Your task to perform on an android device: Add dell xps to the cart on amazon Image 0: 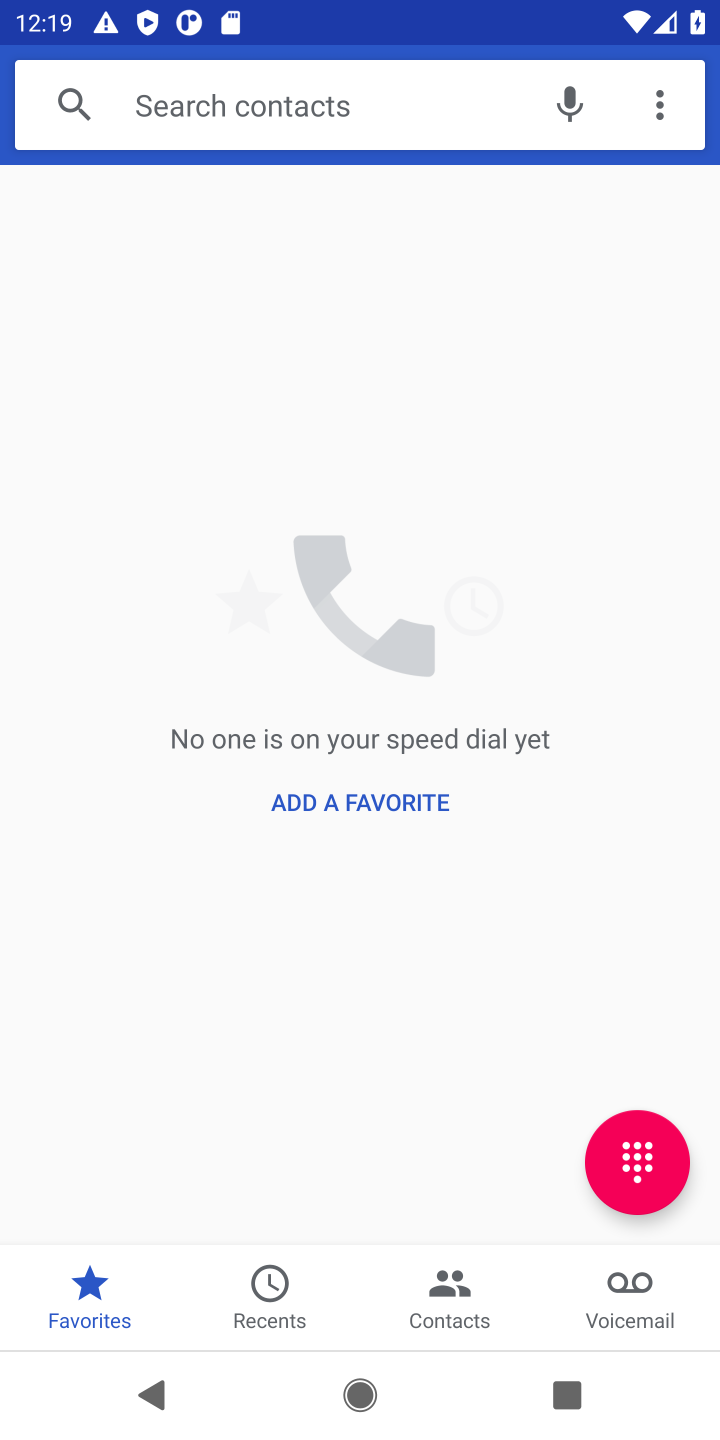
Step 0: press home button
Your task to perform on an android device: Add dell xps to the cart on amazon Image 1: 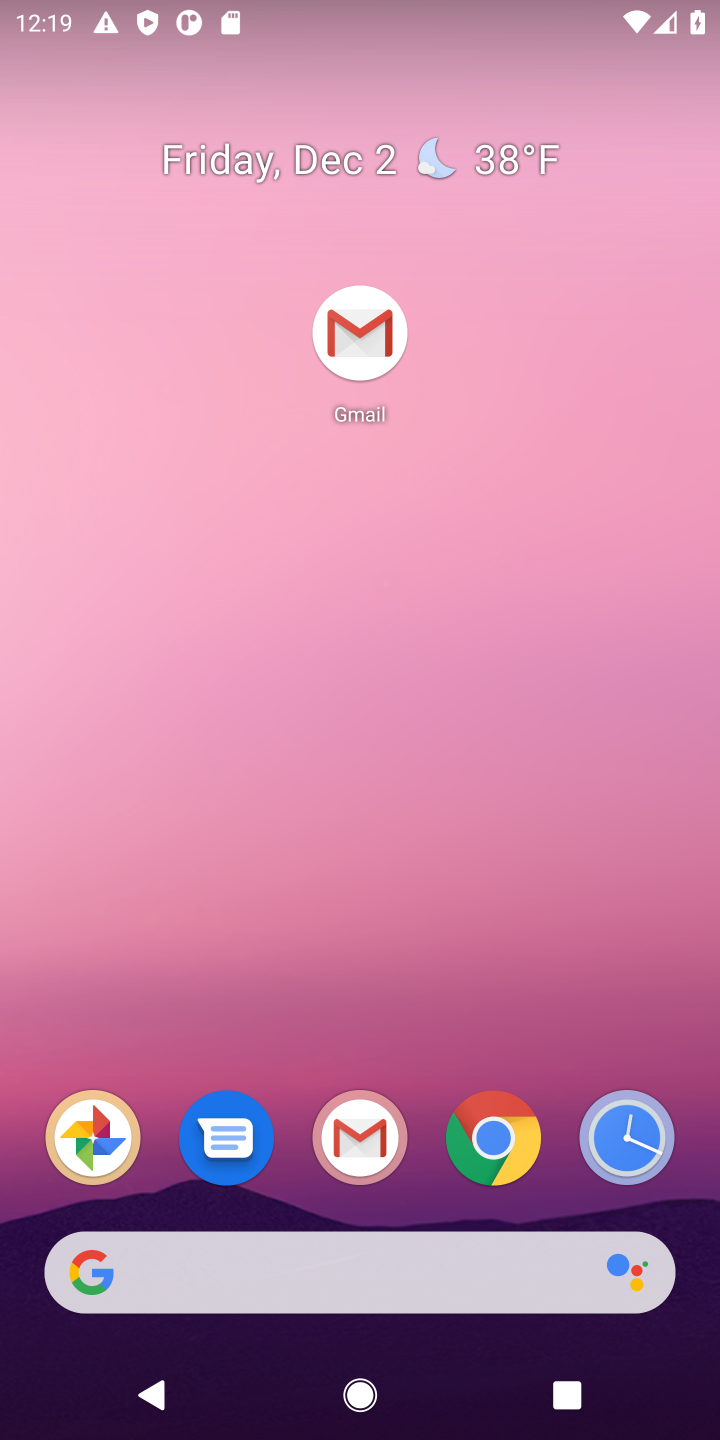
Step 1: drag from (418, 1175) to (475, 488)
Your task to perform on an android device: Add dell xps to the cart on amazon Image 2: 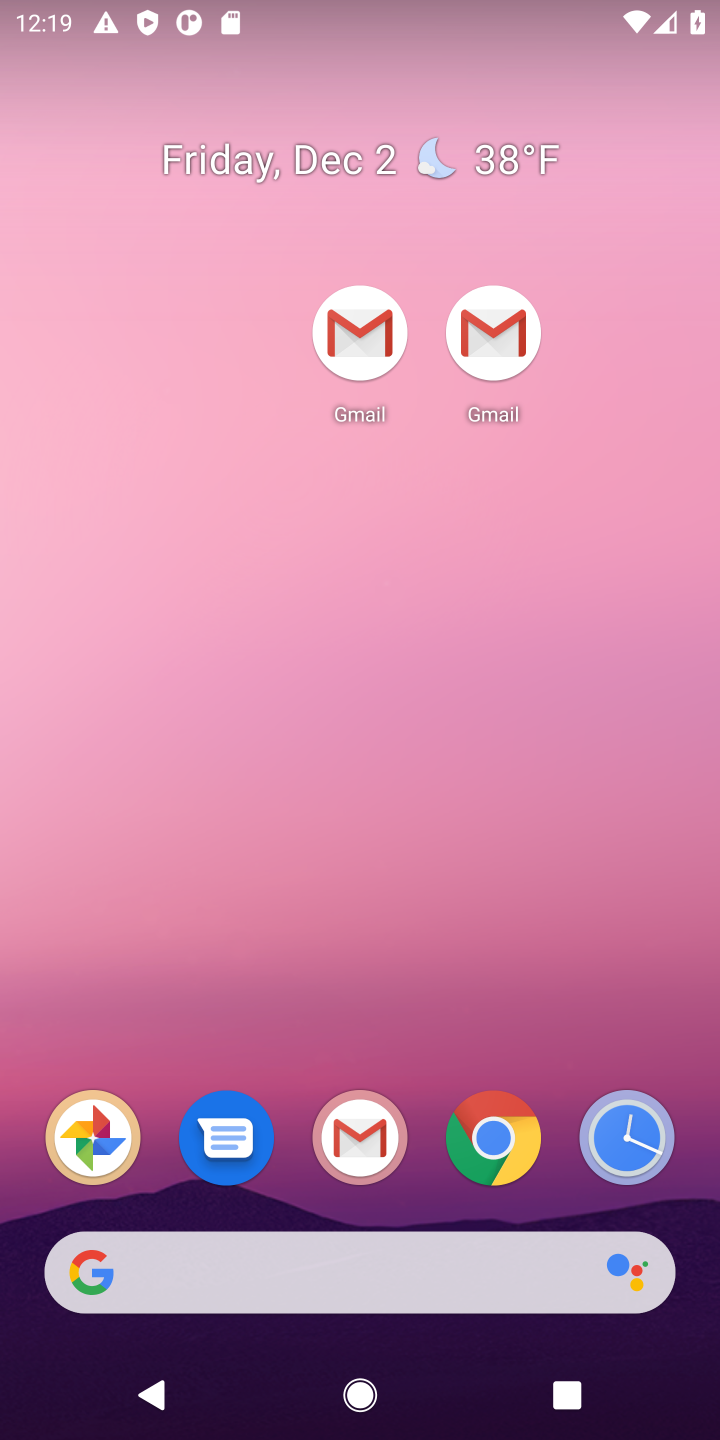
Step 2: drag from (424, 1099) to (462, 311)
Your task to perform on an android device: Add dell xps to the cart on amazon Image 3: 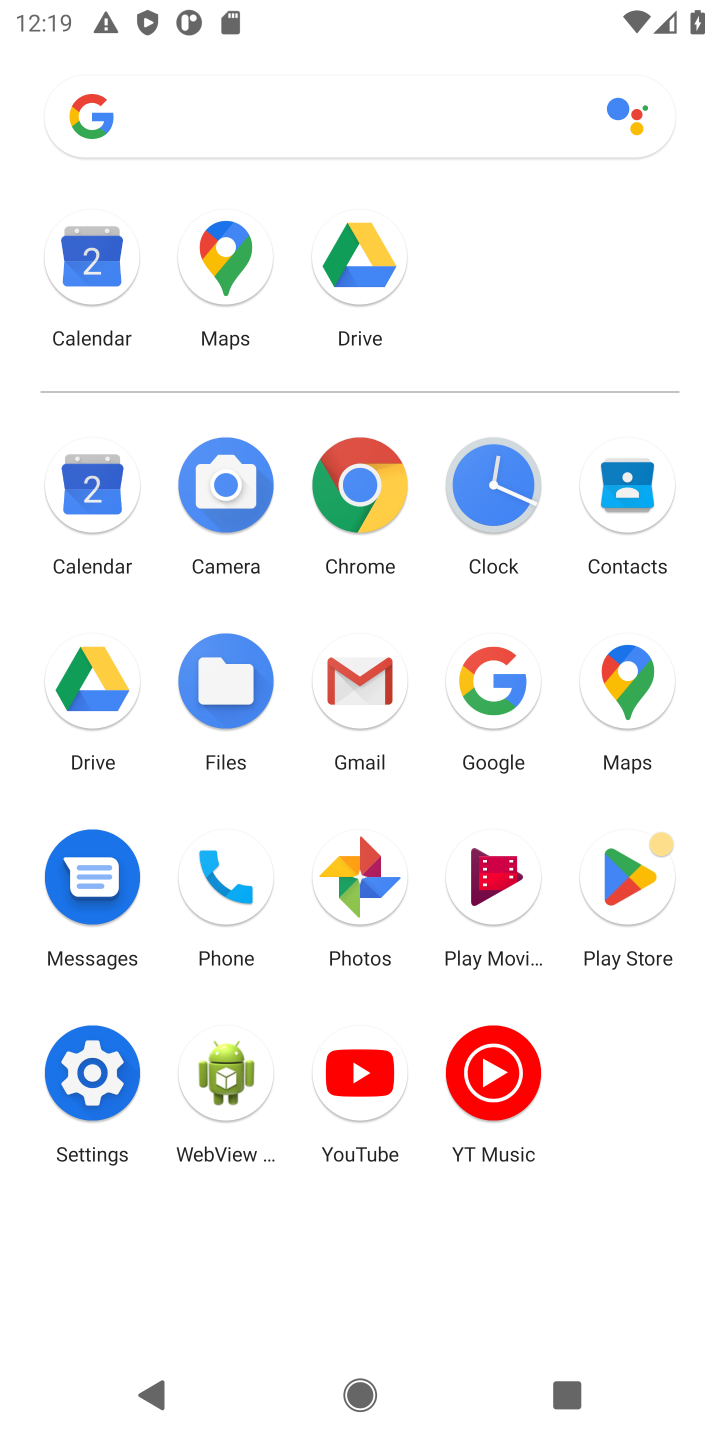
Step 3: click (487, 731)
Your task to perform on an android device: Add dell xps to the cart on amazon Image 4: 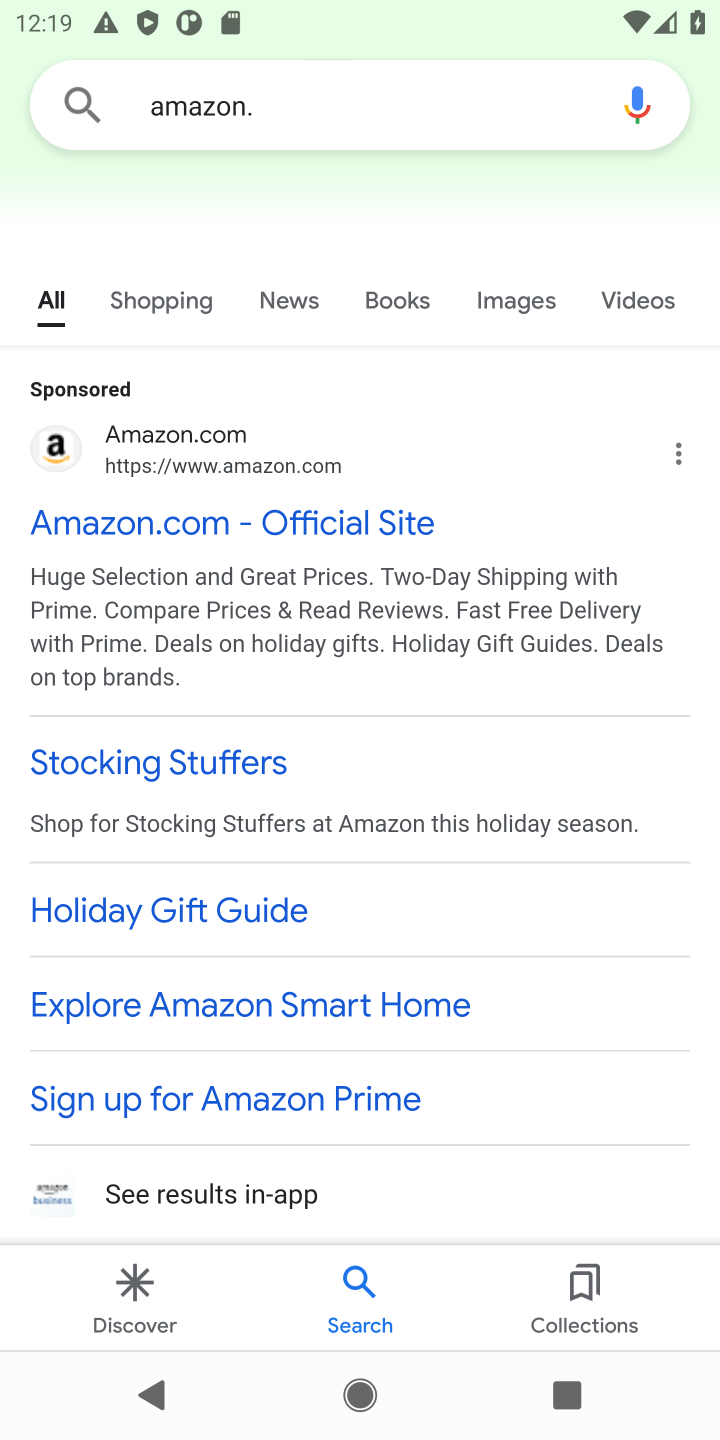
Step 4: click (257, 534)
Your task to perform on an android device: Add dell xps to the cart on amazon Image 5: 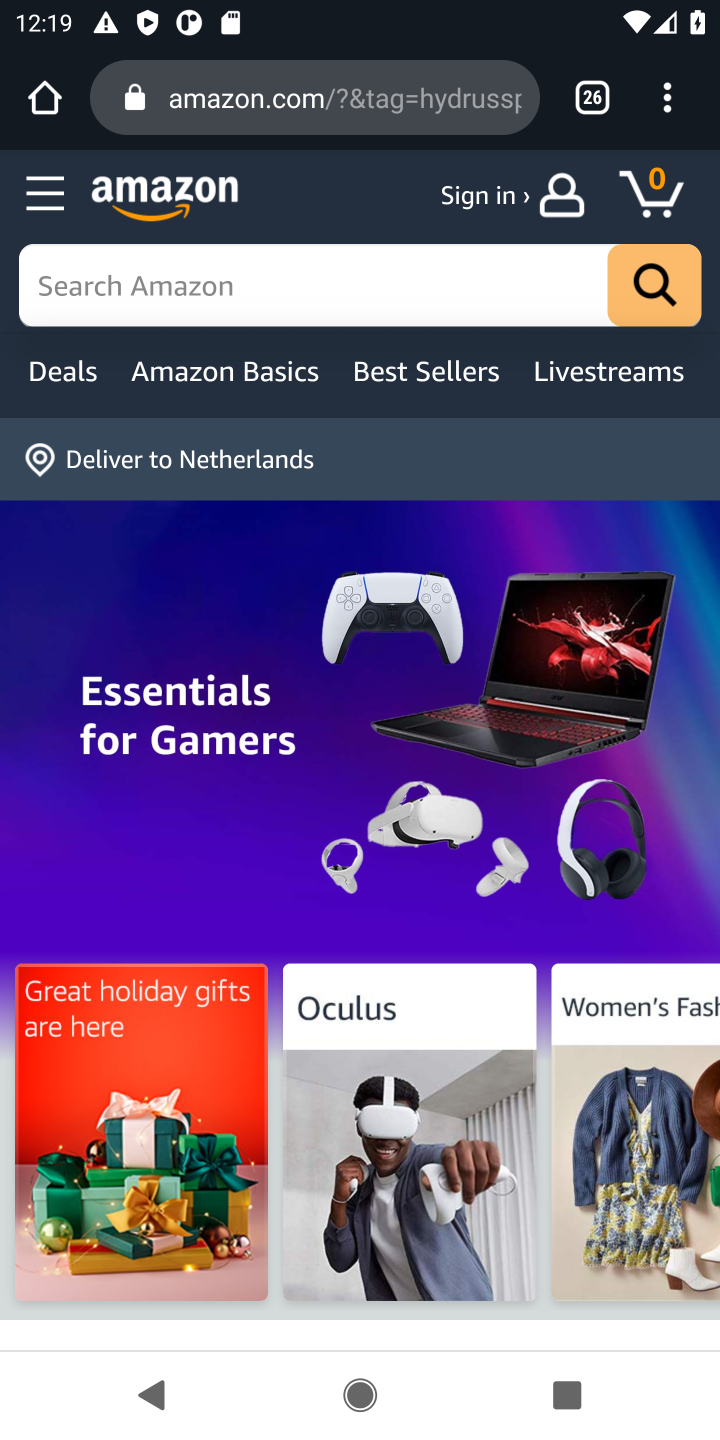
Step 5: click (421, 264)
Your task to perform on an android device: Add dell xps to the cart on amazon Image 6: 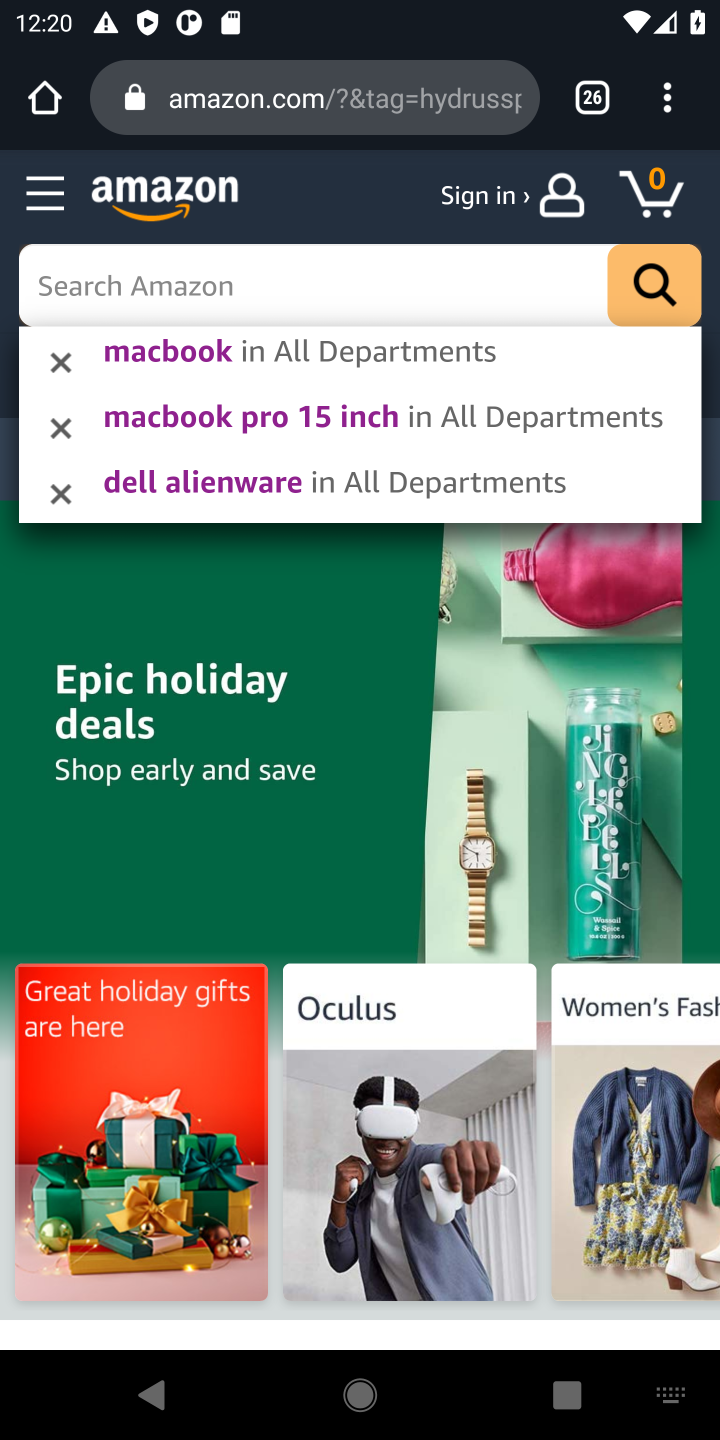
Step 6: type "dell xps"
Your task to perform on an android device: Add dell xps to the cart on amazon Image 7: 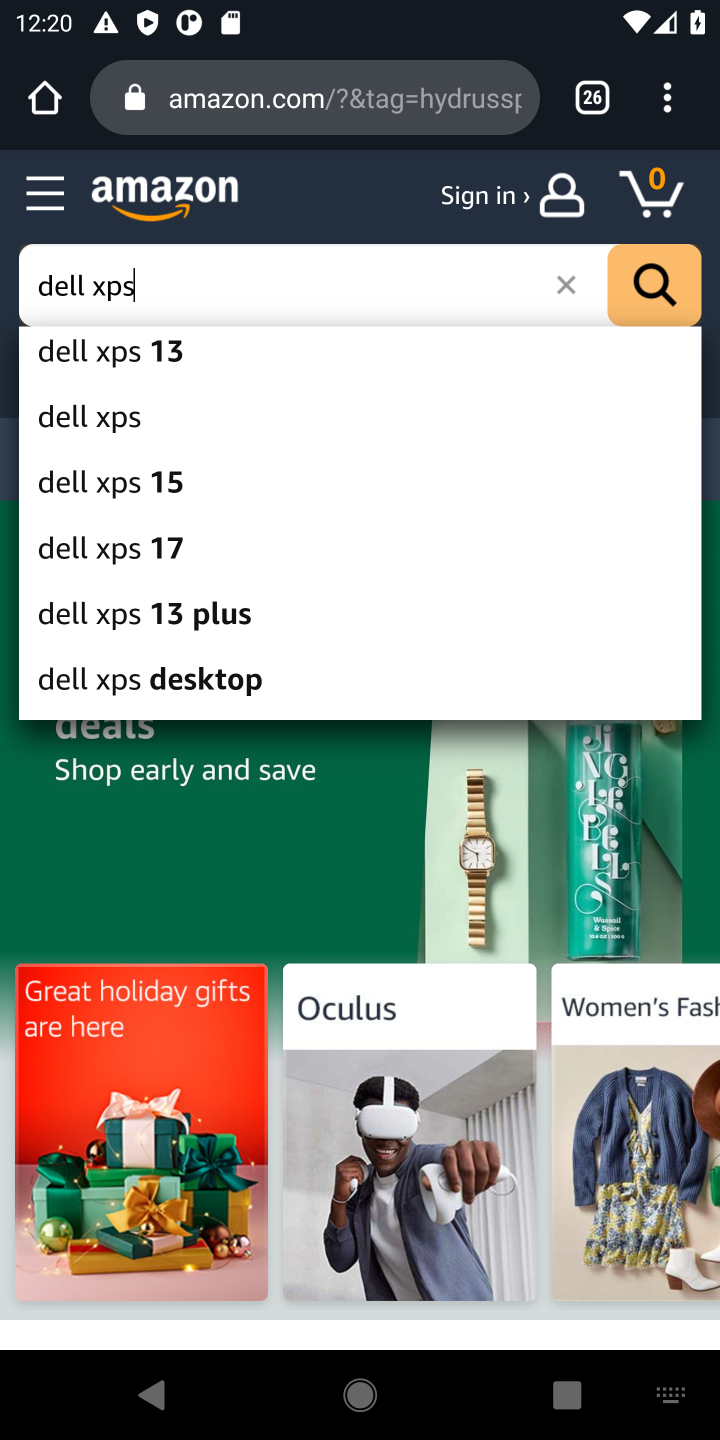
Step 7: click (161, 410)
Your task to perform on an android device: Add dell xps to the cart on amazon Image 8: 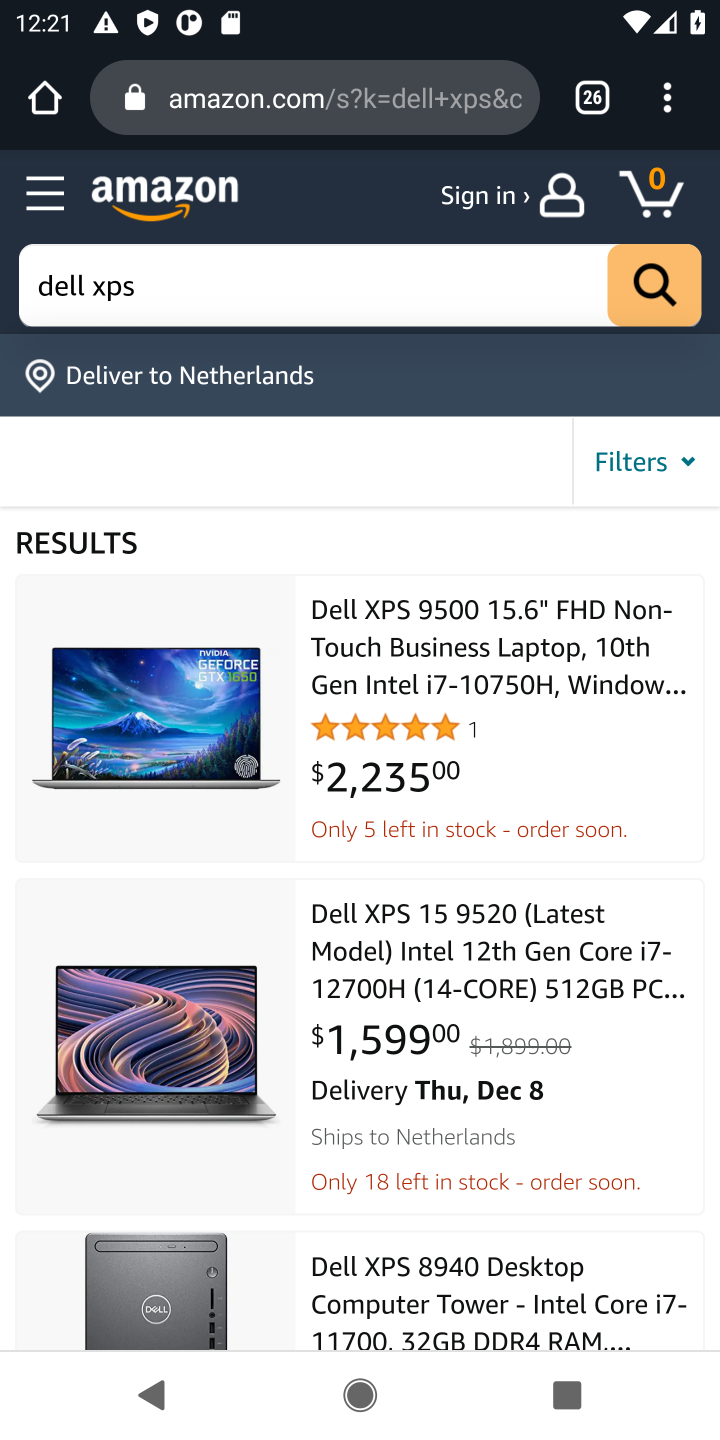
Step 8: click (387, 709)
Your task to perform on an android device: Add dell xps to the cart on amazon Image 9: 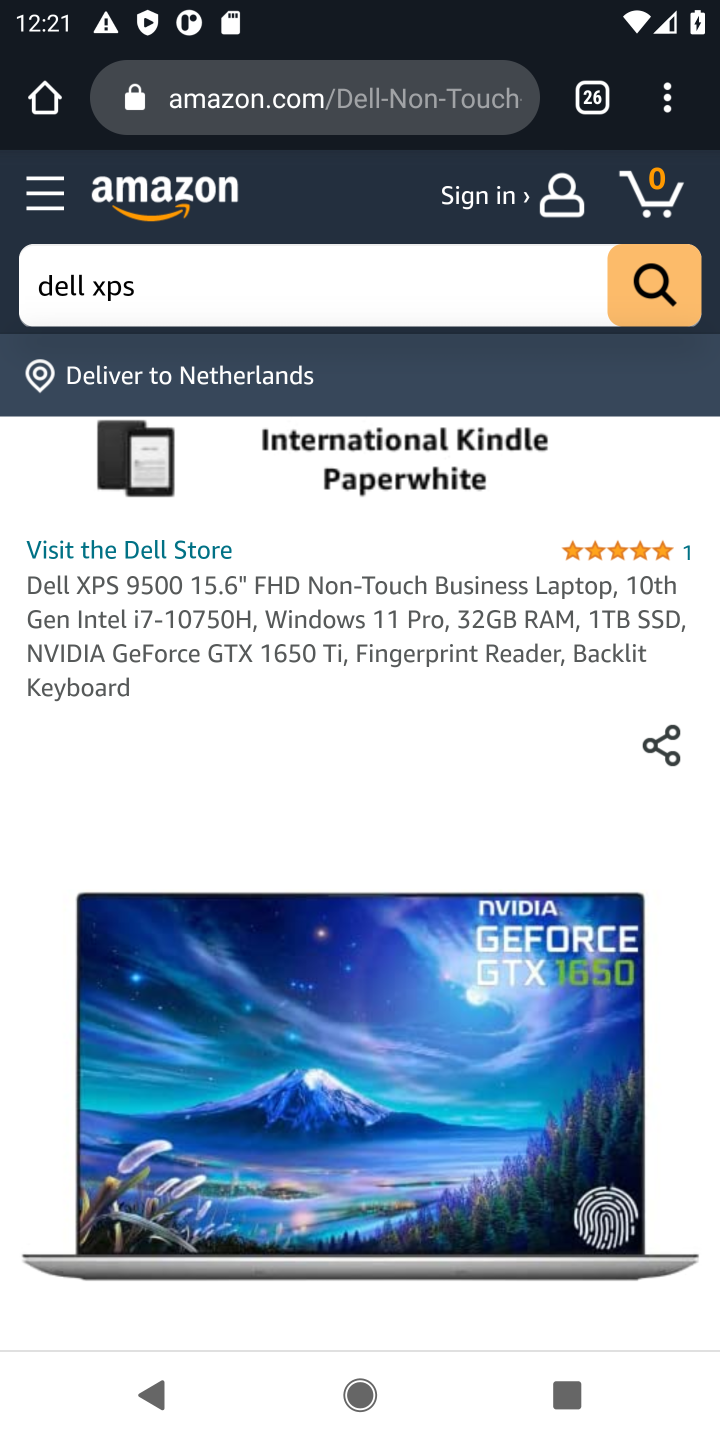
Step 9: drag from (435, 1074) to (475, 633)
Your task to perform on an android device: Add dell xps to the cart on amazon Image 10: 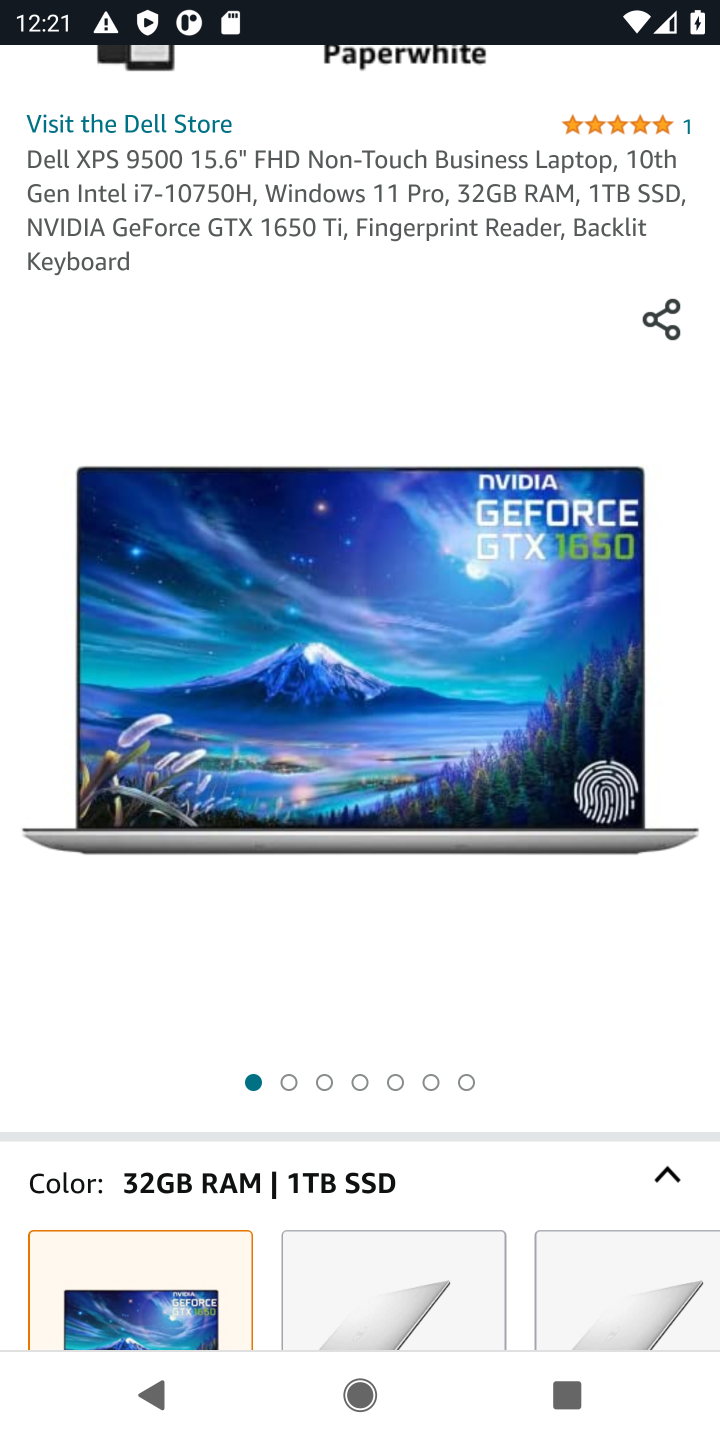
Step 10: drag from (415, 937) to (436, 503)
Your task to perform on an android device: Add dell xps to the cart on amazon Image 11: 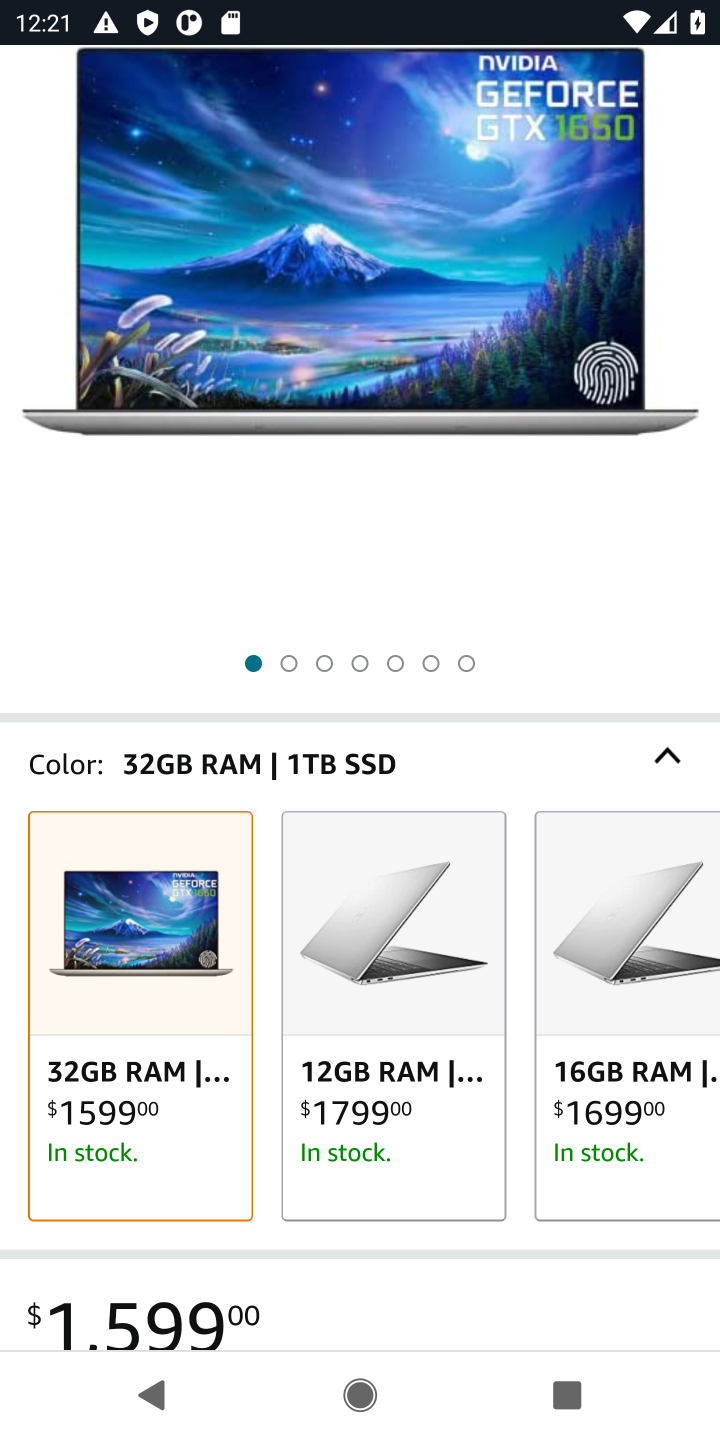
Step 11: drag from (474, 911) to (558, 490)
Your task to perform on an android device: Add dell xps to the cart on amazon Image 12: 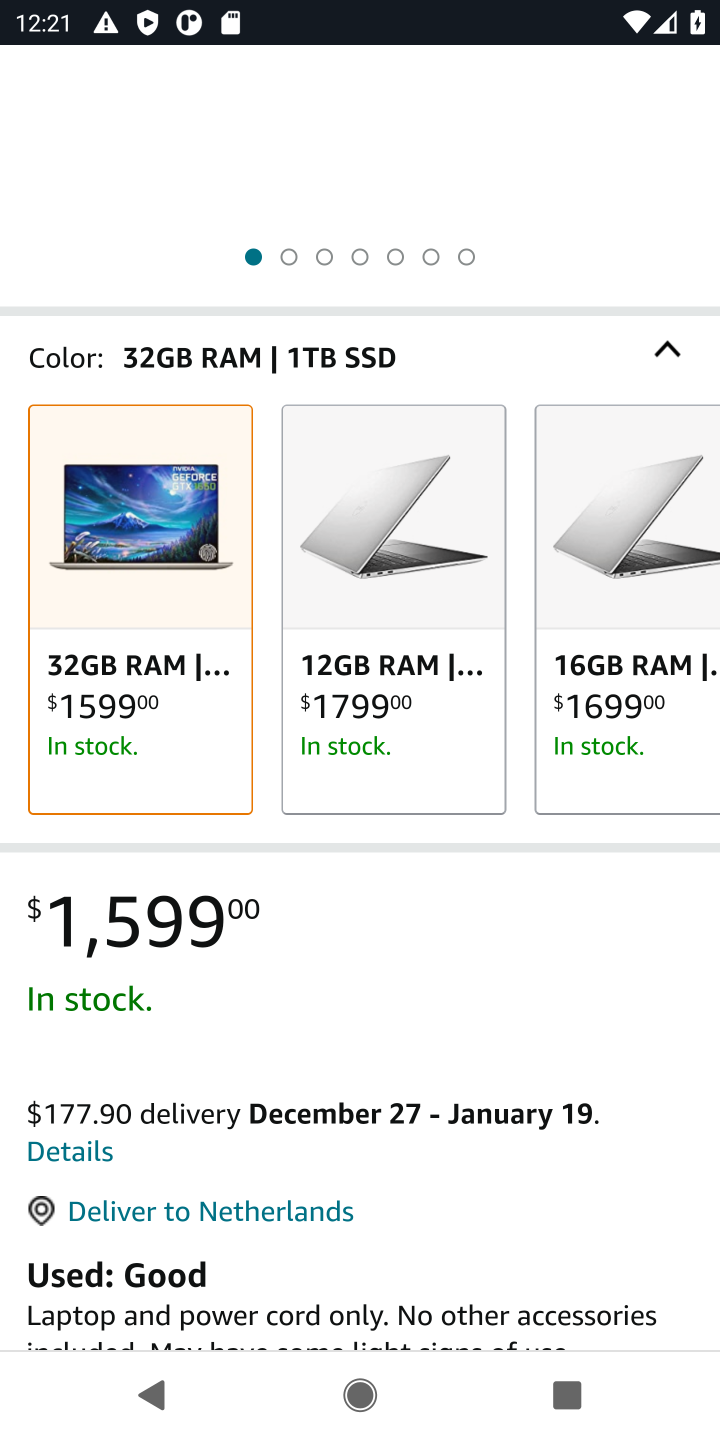
Step 12: drag from (470, 936) to (510, 598)
Your task to perform on an android device: Add dell xps to the cart on amazon Image 13: 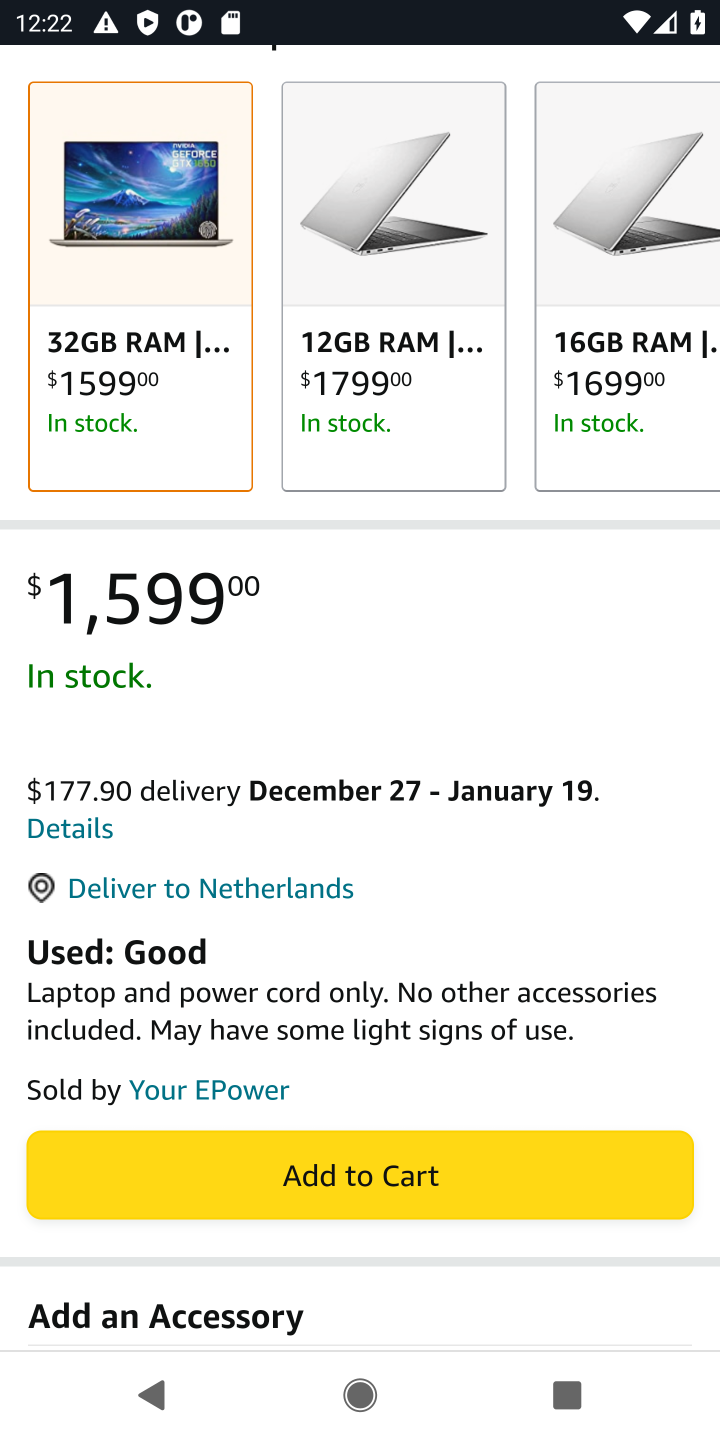
Step 13: click (328, 1227)
Your task to perform on an android device: Add dell xps to the cart on amazon Image 14: 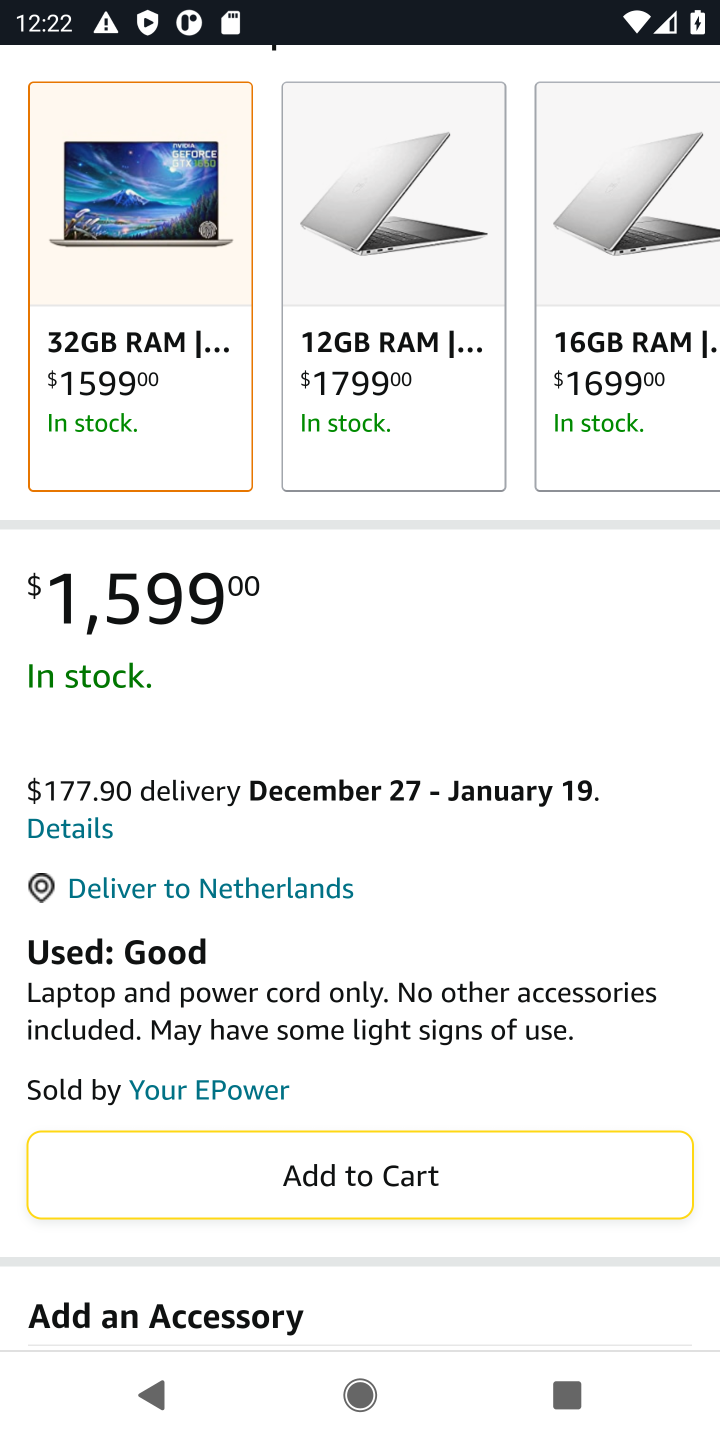
Step 14: task complete